Your task to perform on an android device: Open display settings Image 0: 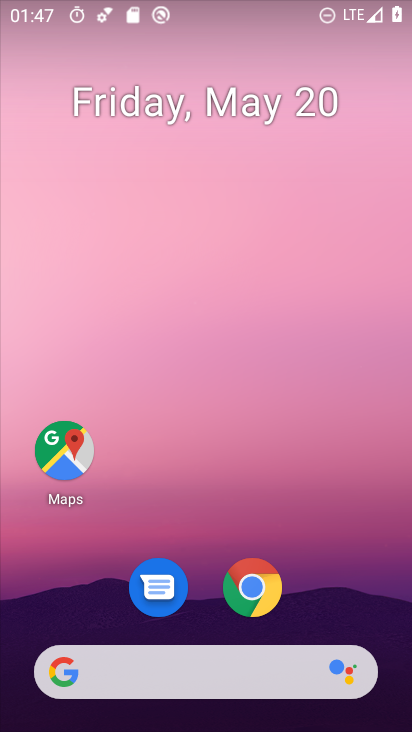
Step 0: drag from (361, 562) to (362, 93)
Your task to perform on an android device: Open display settings Image 1: 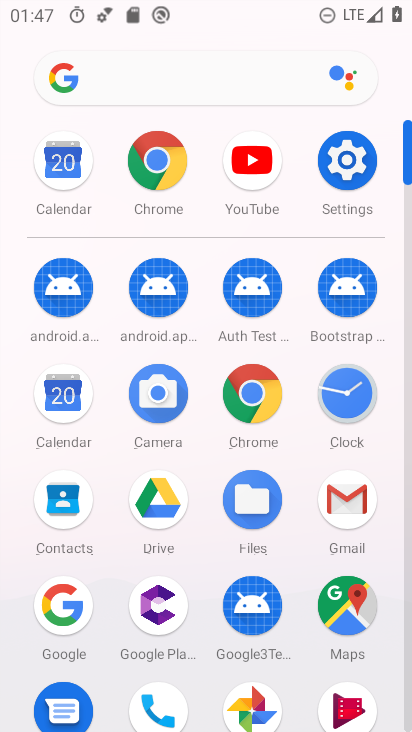
Step 1: click (345, 159)
Your task to perform on an android device: Open display settings Image 2: 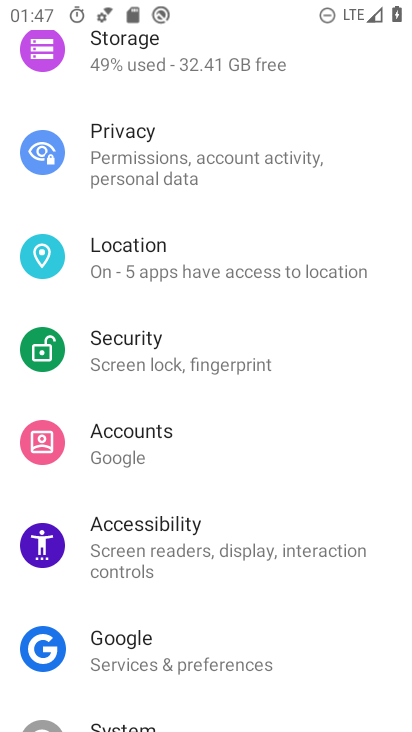
Step 2: drag from (357, 147) to (351, 240)
Your task to perform on an android device: Open display settings Image 3: 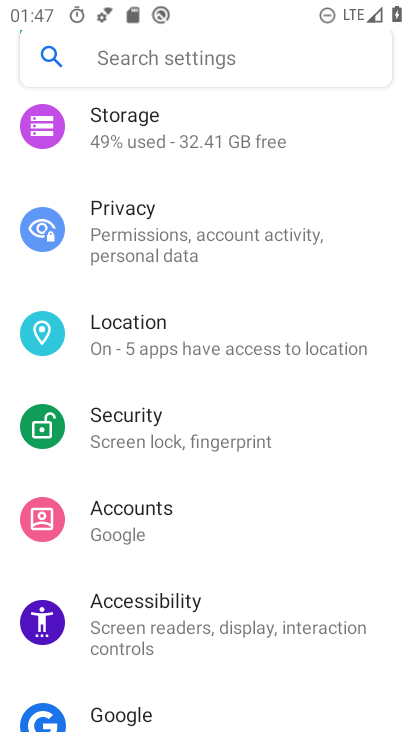
Step 3: drag from (362, 178) to (362, 265)
Your task to perform on an android device: Open display settings Image 4: 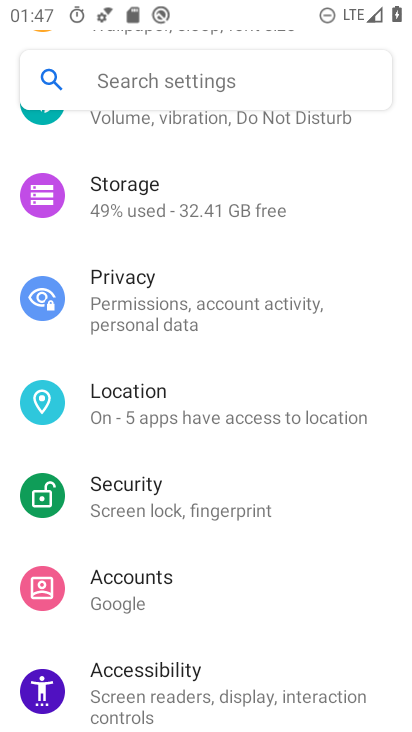
Step 4: drag from (373, 163) to (367, 259)
Your task to perform on an android device: Open display settings Image 5: 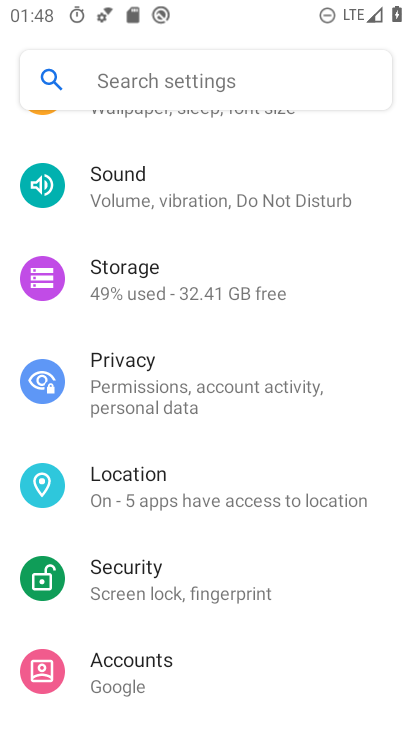
Step 5: drag from (382, 242) to (379, 306)
Your task to perform on an android device: Open display settings Image 6: 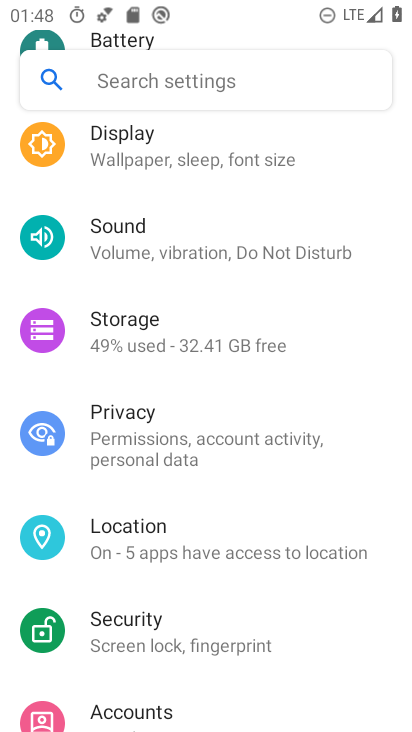
Step 6: drag from (380, 200) to (373, 291)
Your task to perform on an android device: Open display settings Image 7: 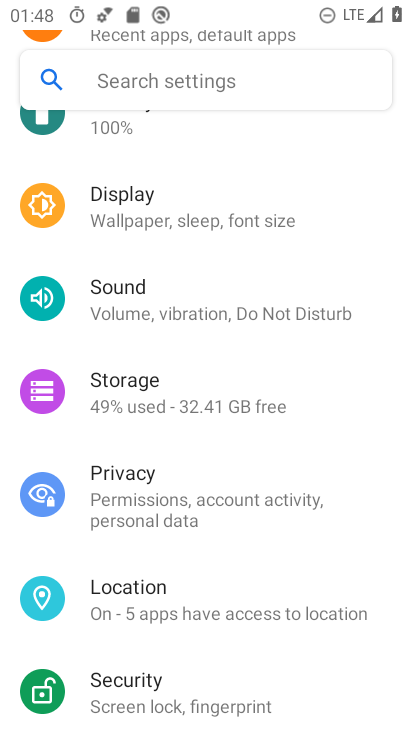
Step 7: drag from (369, 214) to (358, 302)
Your task to perform on an android device: Open display settings Image 8: 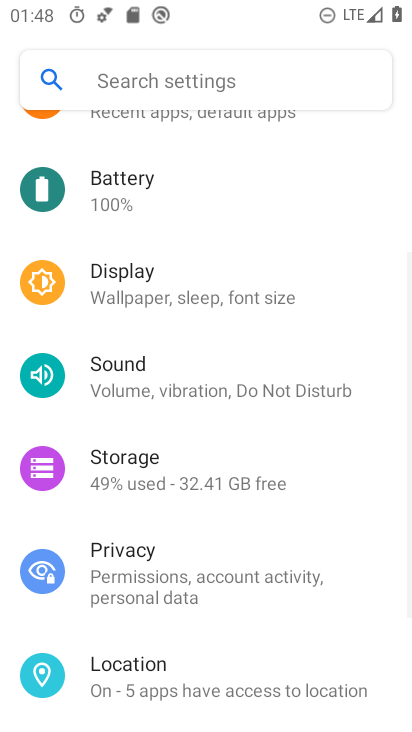
Step 8: drag from (364, 202) to (361, 301)
Your task to perform on an android device: Open display settings Image 9: 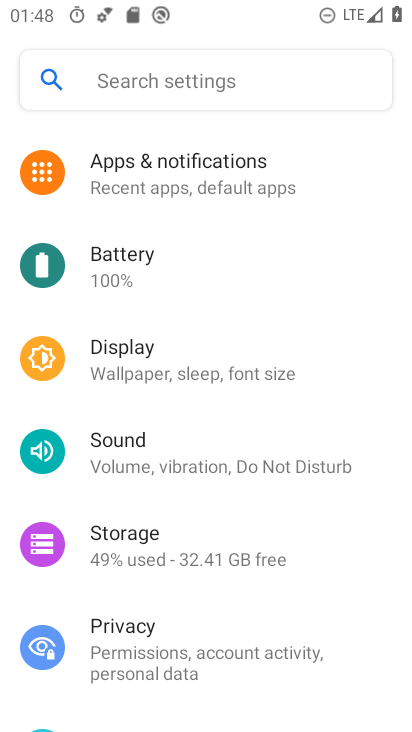
Step 9: drag from (363, 251) to (355, 327)
Your task to perform on an android device: Open display settings Image 10: 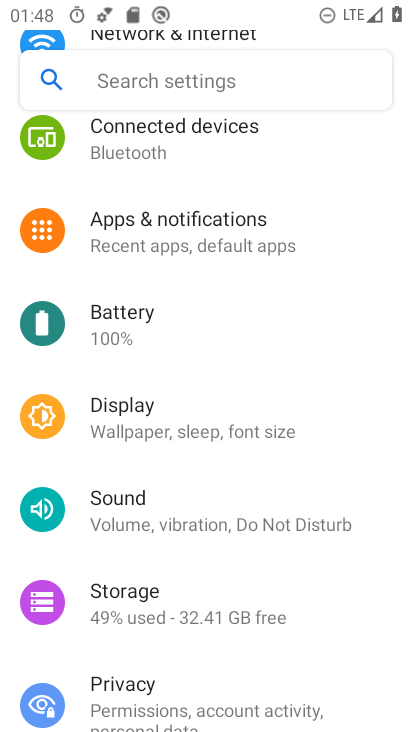
Step 10: click (217, 417)
Your task to perform on an android device: Open display settings Image 11: 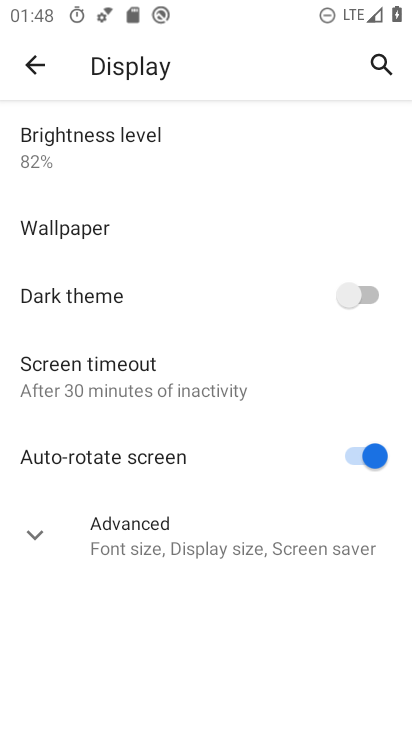
Step 11: click (154, 532)
Your task to perform on an android device: Open display settings Image 12: 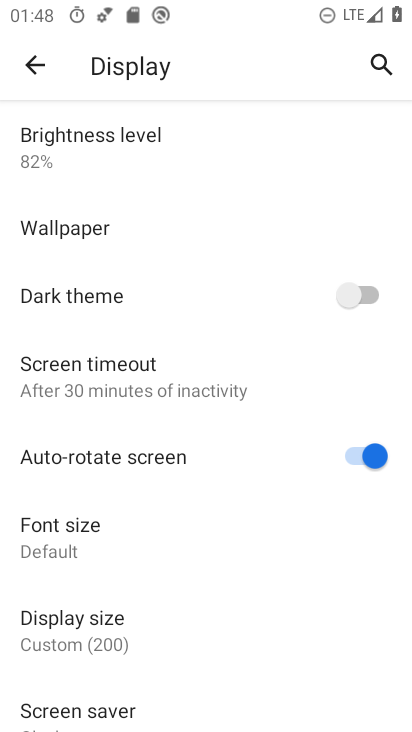
Step 12: task complete